Your task to perform on an android device: What's the weather today? Image 0: 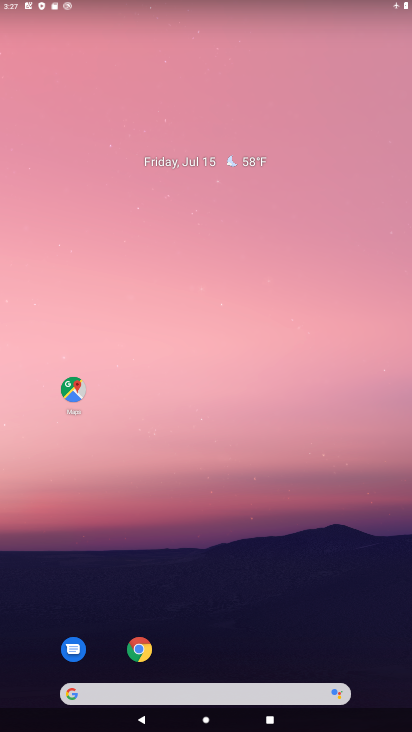
Step 0: click (229, 159)
Your task to perform on an android device: What's the weather today? Image 1: 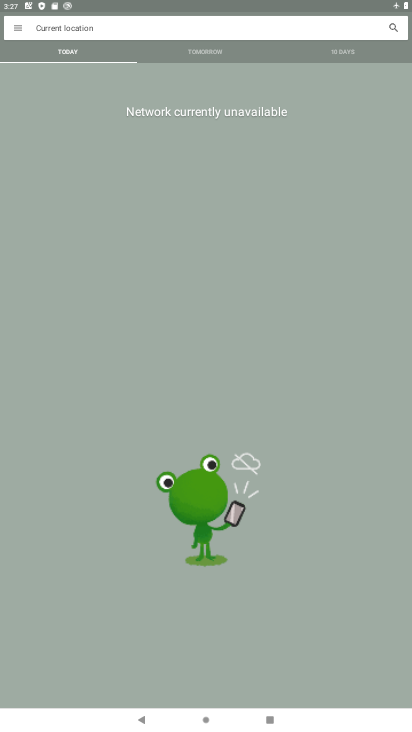
Step 1: task complete